Your task to perform on an android device: see tabs open on other devices in the chrome app Image 0: 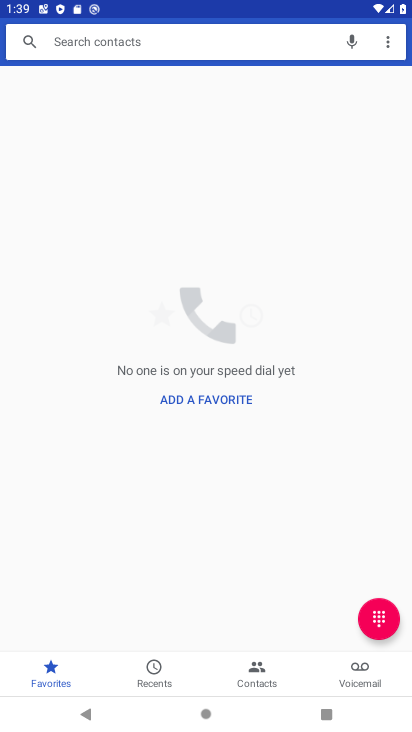
Step 0: press home button
Your task to perform on an android device: see tabs open on other devices in the chrome app Image 1: 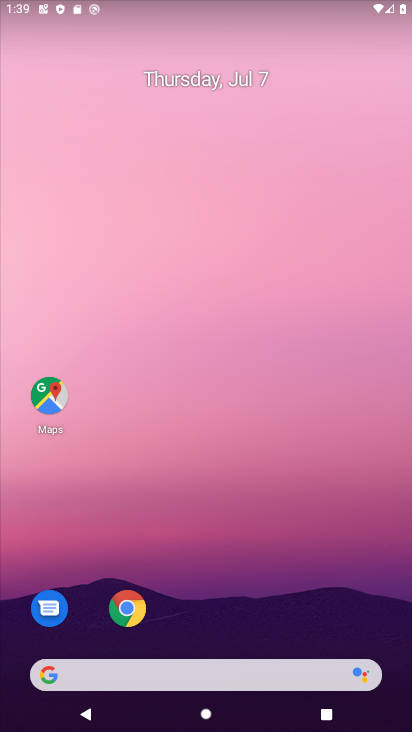
Step 1: drag from (139, 629) to (204, 147)
Your task to perform on an android device: see tabs open on other devices in the chrome app Image 2: 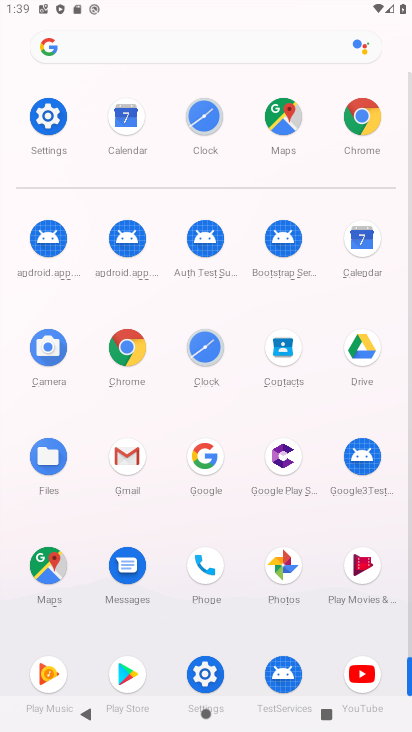
Step 2: click (122, 354)
Your task to perform on an android device: see tabs open on other devices in the chrome app Image 3: 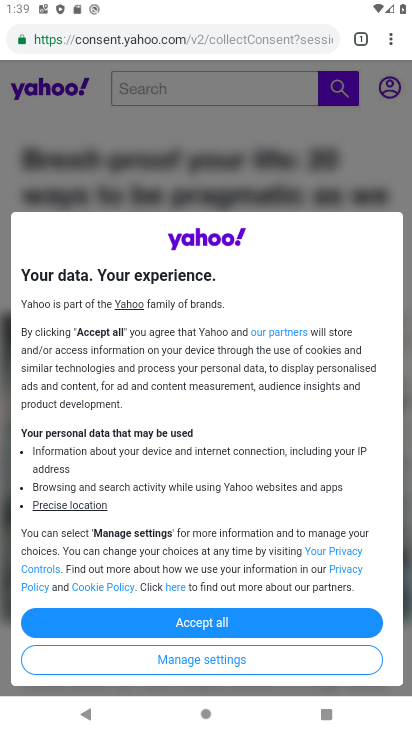
Step 3: click (386, 40)
Your task to perform on an android device: see tabs open on other devices in the chrome app Image 4: 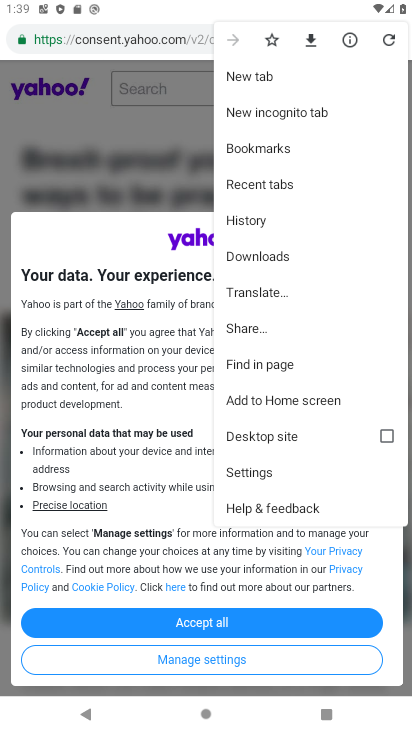
Step 4: click (289, 188)
Your task to perform on an android device: see tabs open on other devices in the chrome app Image 5: 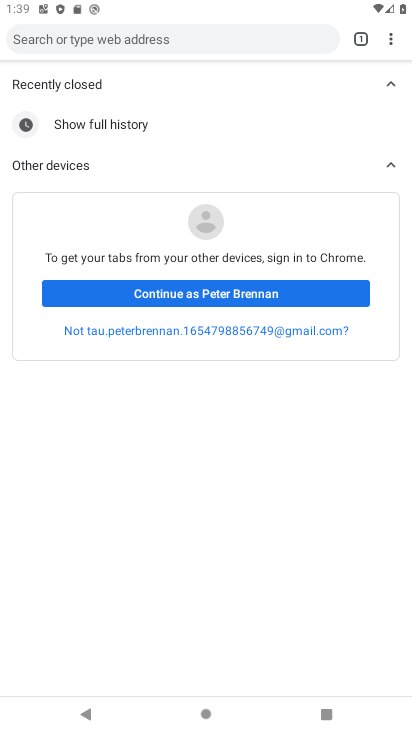
Step 5: task complete